Your task to perform on an android device: Check the weather Image 0: 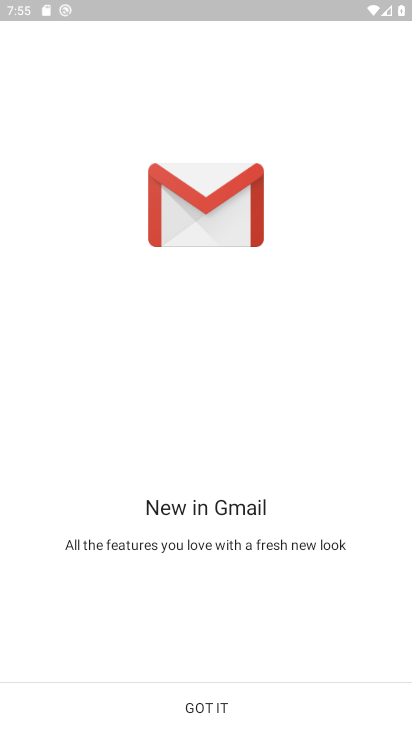
Step 0: press home button
Your task to perform on an android device: Check the weather Image 1: 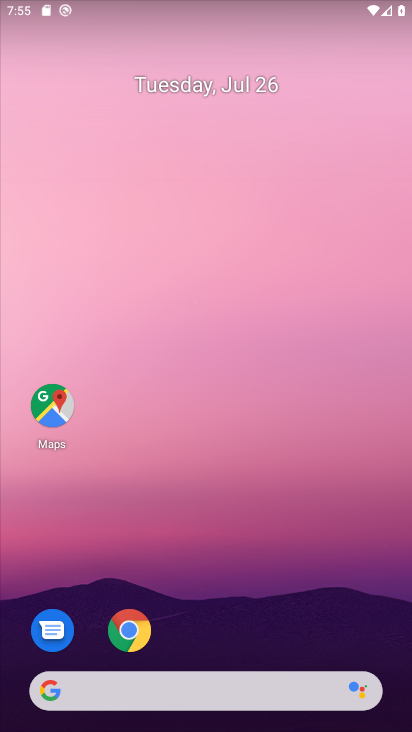
Step 1: drag from (3, 228) to (401, 154)
Your task to perform on an android device: Check the weather Image 2: 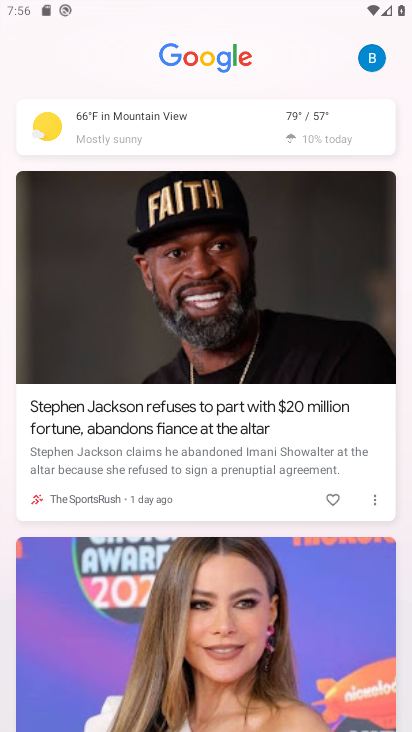
Step 2: click (337, 118)
Your task to perform on an android device: Check the weather Image 3: 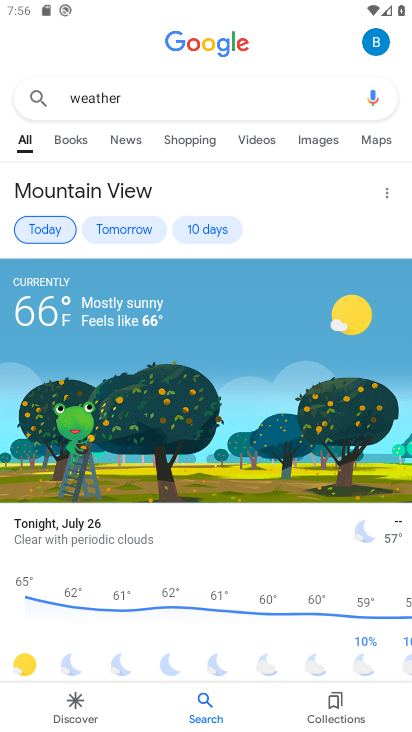
Step 3: task complete